Your task to perform on an android device: See recent photos Image 0: 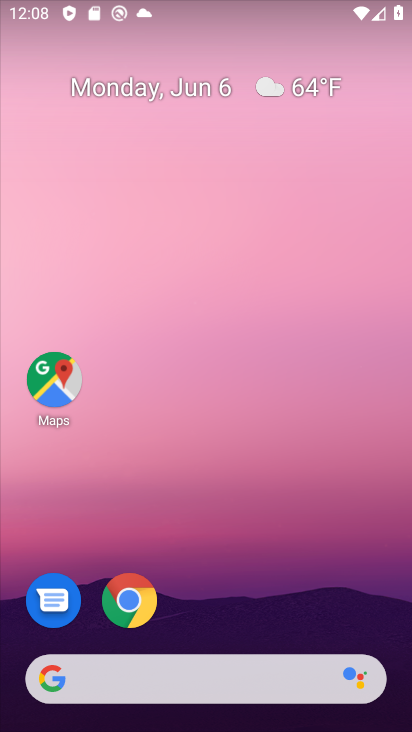
Step 0: drag from (398, 700) to (354, 7)
Your task to perform on an android device: See recent photos Image 1: 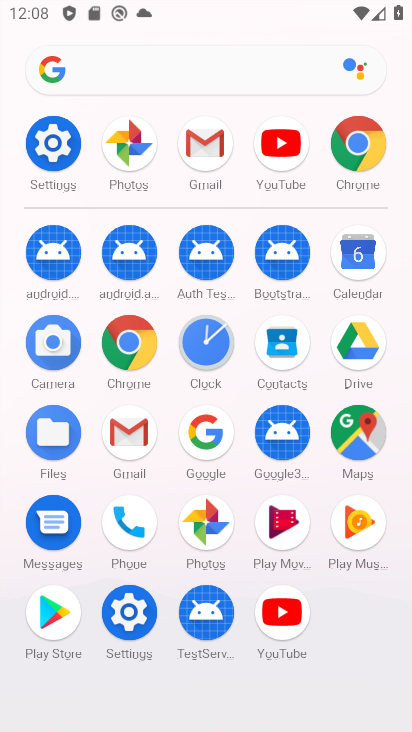
Step 1: click (213, 521)
Your task to perform on an android device: See recent photos Image 2: 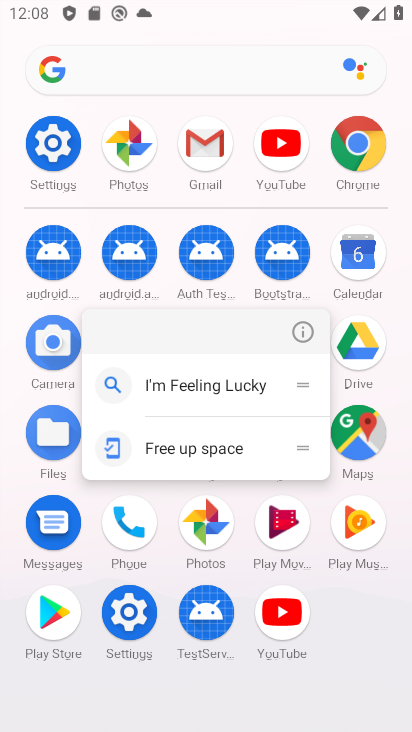
Step 2: click (213, 521)
Your task to perform on an android device: See recent photos Image 3: 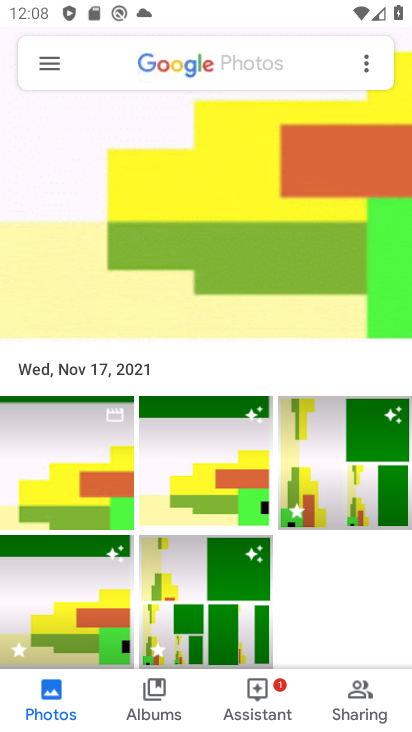
Step 3: click (217, 609)
Your task to perform on an android device: See recent photos Image 4: 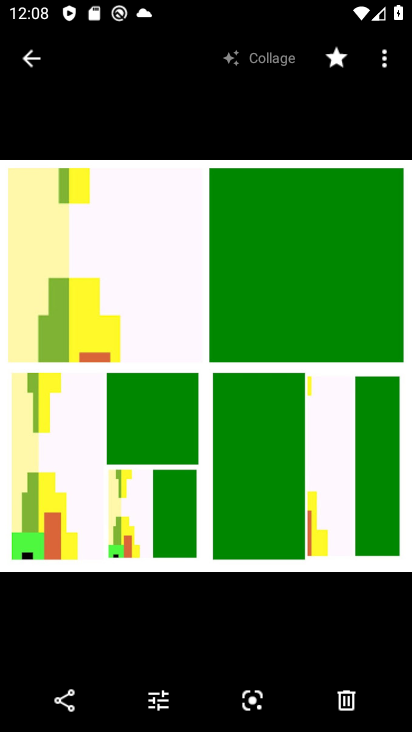
Step 4: click (27, 70)
Your task to perform on an android device: See recent photos Image 5: 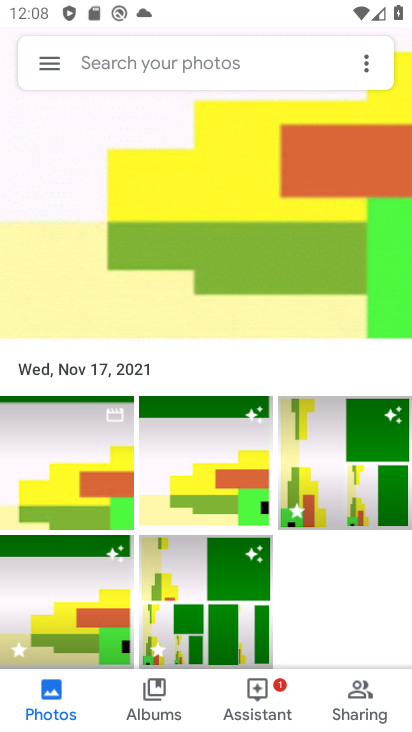
Step 5: click (75, 578)
Your task to perform on an android device: See recent photos Image 6: 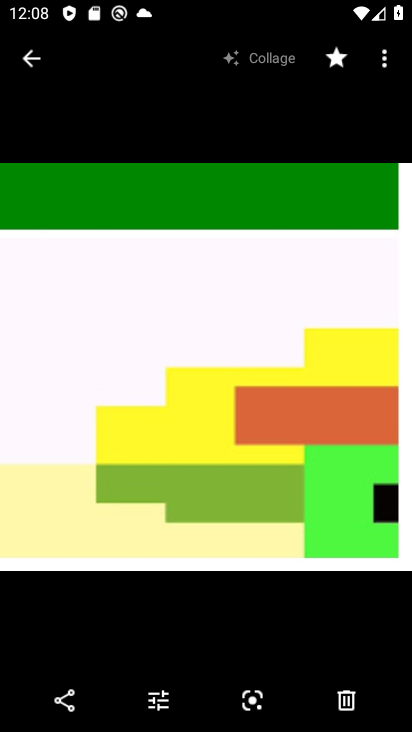
Step 6: click (16, 58)
Your task to perform on an android device: See recent photos Image 7: 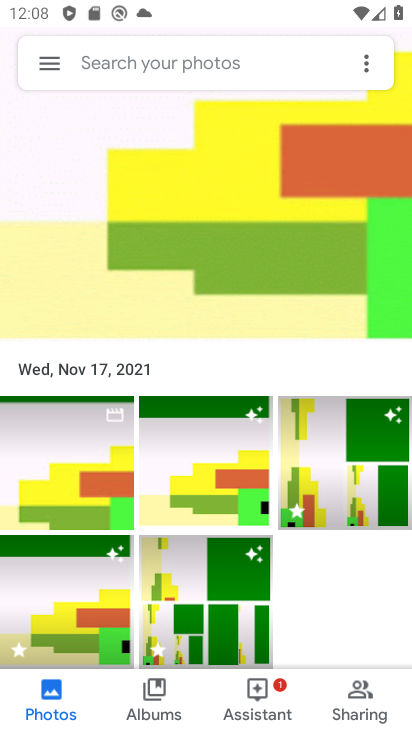
Step 7: click (322, 469)
Your task to perform on an android device: See recent photos Image 8: 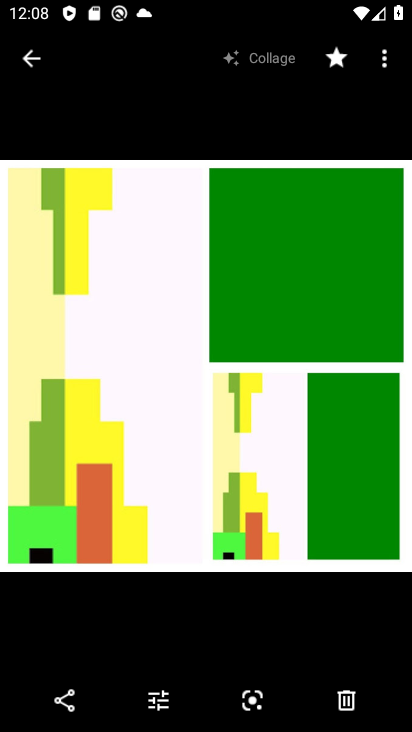
Step 8: click (31, 67)
Your task to perform on an android device: See recent photos Image 9: 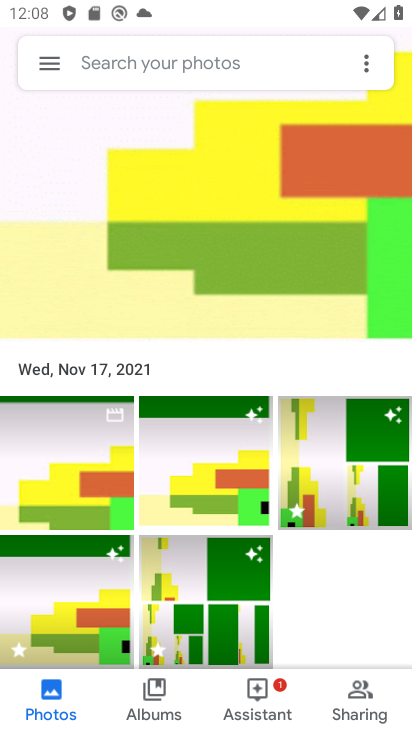
Step 9: task complete